Your task to perform on an android device: turn notification dots on Image 0: 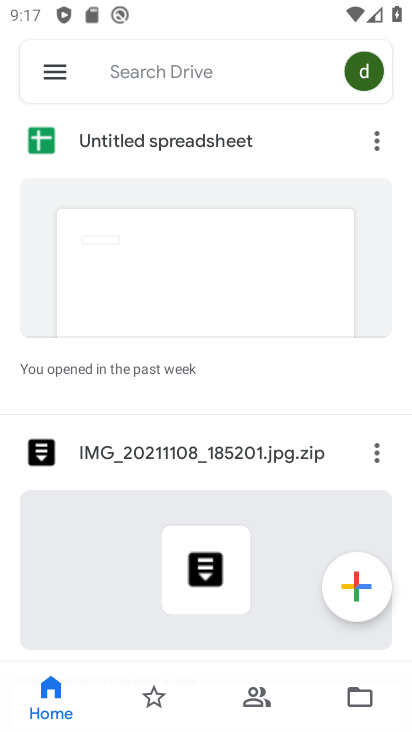
Step 0: press home button
Your task to perform on an android device: turn notification dots on Image 1: 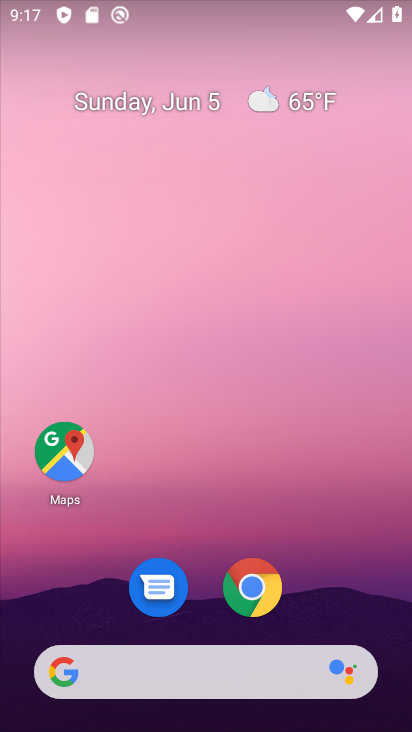
Step 1: drag from (84, 637) to (173, 278)
Your task to perform on an android device: turn notification dots on Image 2: 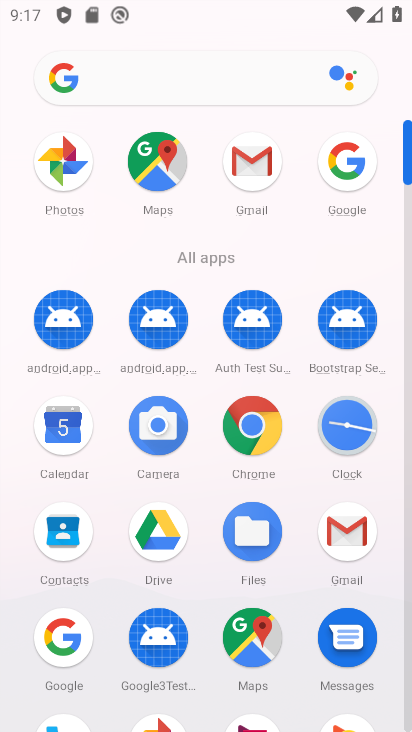
Step 2: drag from (234, 647) to (347, 255)
Your task to perform on an android device: turn notification dots on Image 3: 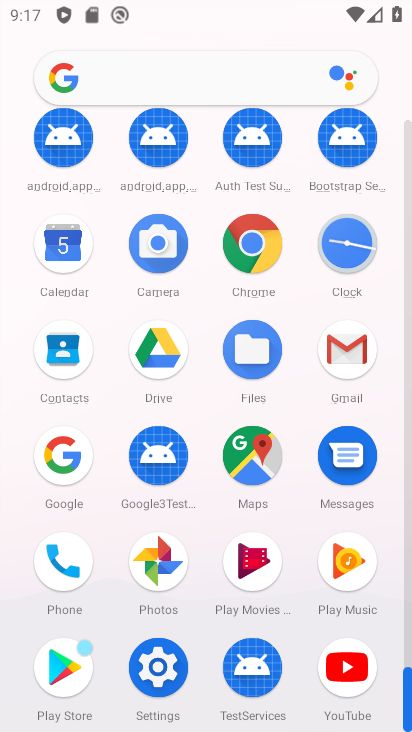
Step 3: click (169, 666)
Your task to perform on an android device: turn notification dots on Image 4: 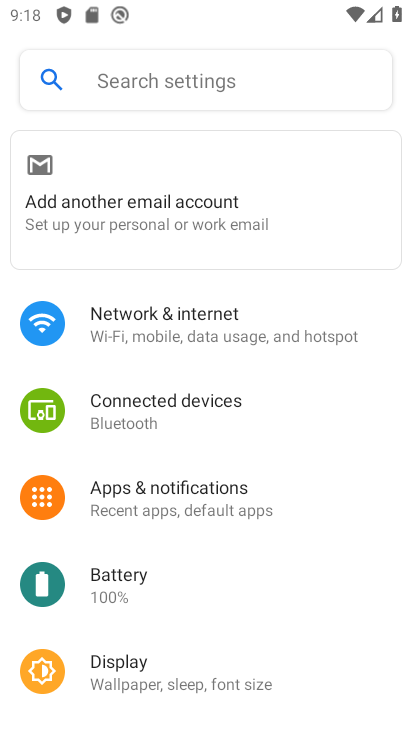
Step 4: drag from (191, 638) to (269, 357)
Your task to perform on an android device: turn notification dots on Image 5: 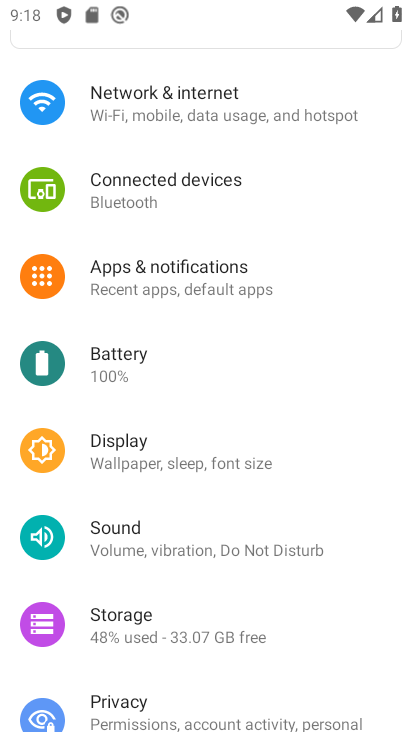
Step 5: click (229, 276)
Your task to perform on an android device: turn notification dots on Image 6: 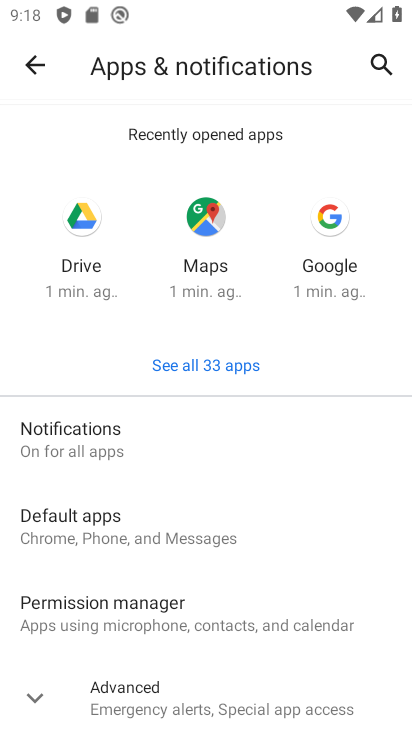
Step 6: drag from (172, 672) to (248, 411)
Your task to perform on an android device: turn notification dots on Image 7: 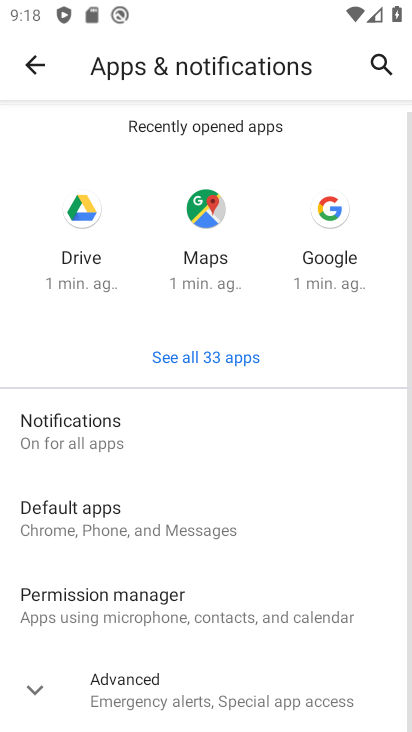
Step 7: click (111, 444)
Your task to perform on an android device: turn notification dots on Image 8: 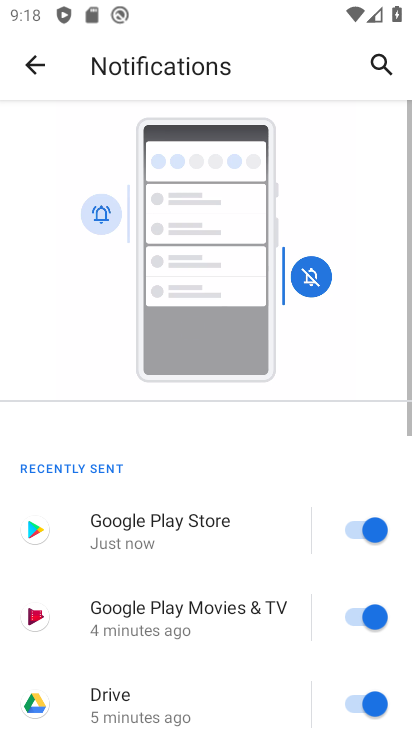
Step 8: drag from (166, 687) to (326, 139)
Your task to perform on an android device: turn notification dots on Image 9: 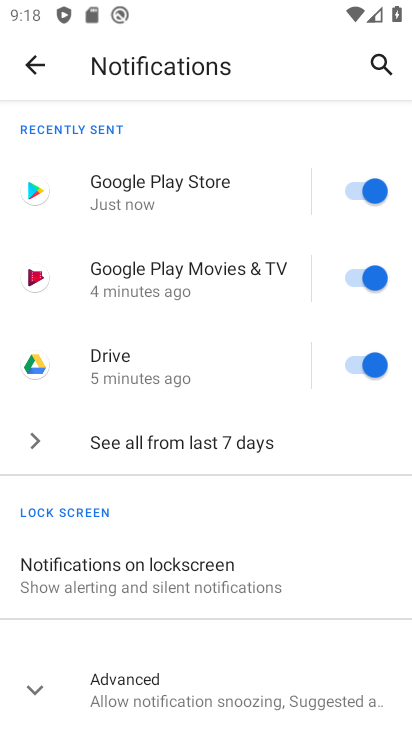
Step 9: click (227, 689)
Your task to perform on an android device: turn notification dots on Image 10: 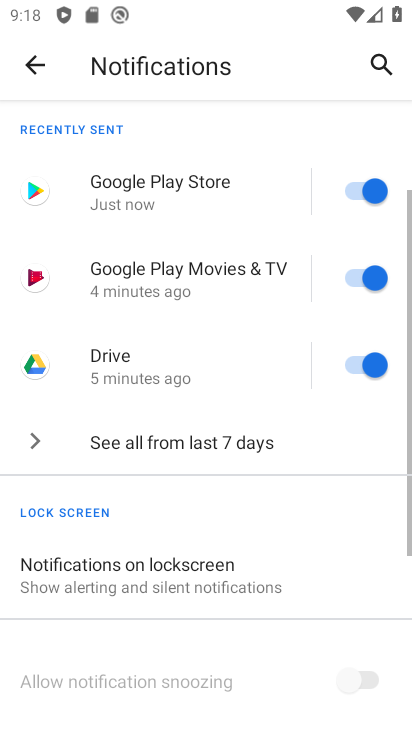
Step 10: task complete